Your task to perform on an android device: Open Chrome and go to the settings page Image 0: 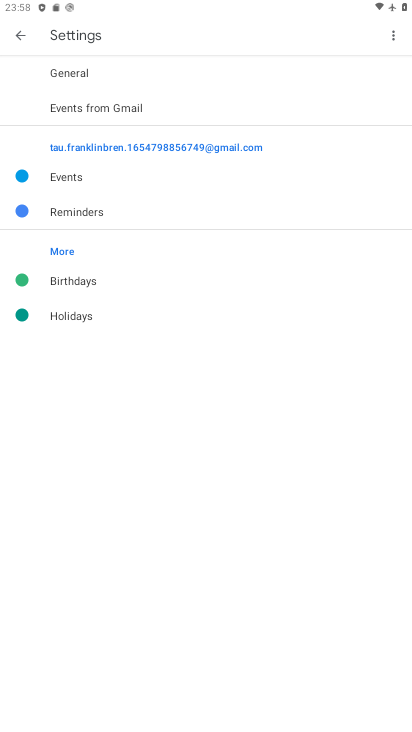
Step 0: press back button
Your task to perform on an android device: Open Chrome and go to the settings page Image 1: 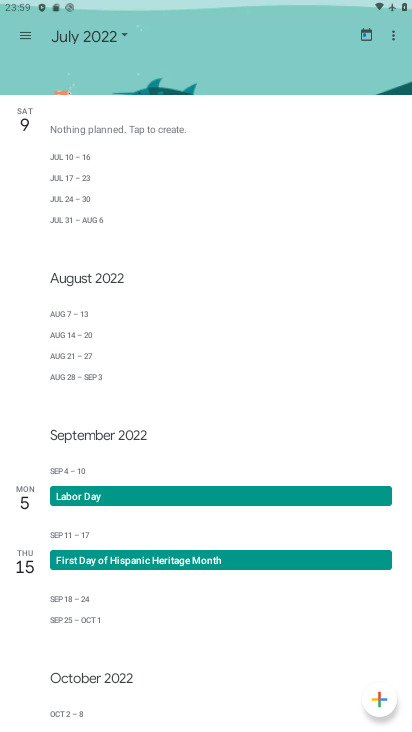
Step 1: press home button
Your task to perform on an android device: Open Chrome and go to the settings page Image 2: 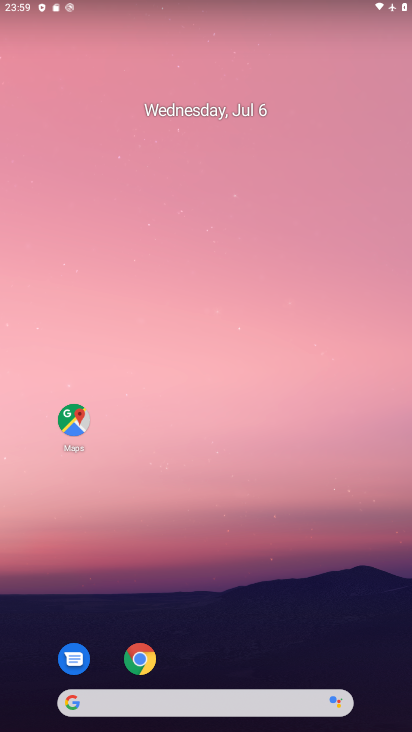
Step 2: drag from (239, 715) to (188, 73)
Your task to perform on an android device: Open Chrome and go to the settings page Image 3: 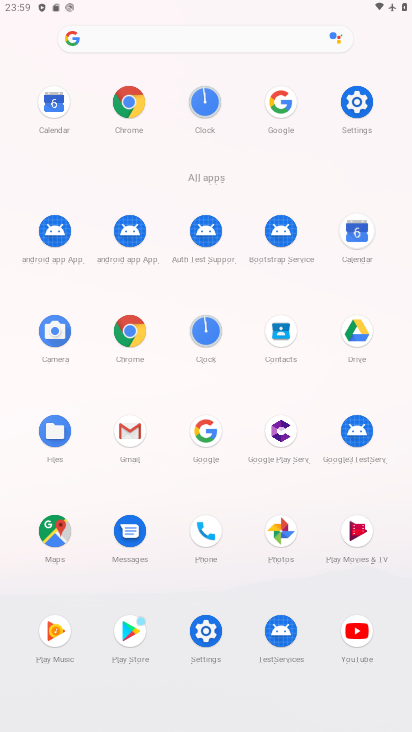
Step 3: click (356, 105)
Your task to perform on an android device: Open Chrome and go to the settings page Image 4: 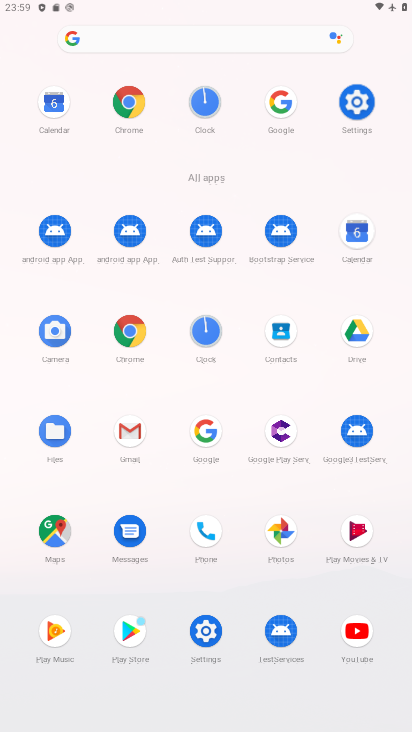
Step 4: click (363, 87)
Your task to perform on an android device: Open Chrome and go to the settings page Image 5: 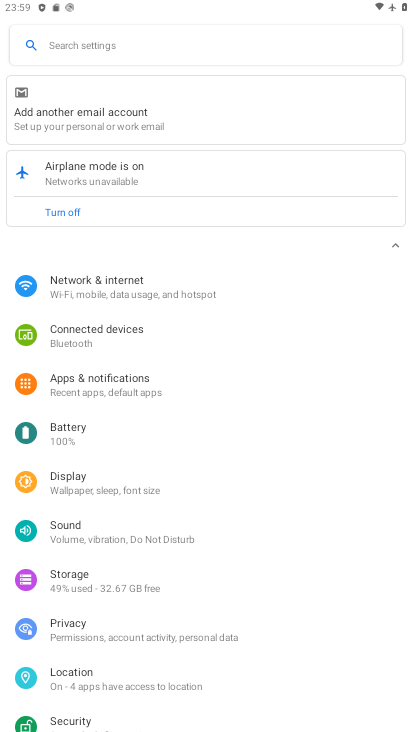
Step 5: press back button
Your task to perform on an android device: Open Chrome and go to the settings page Image 6: 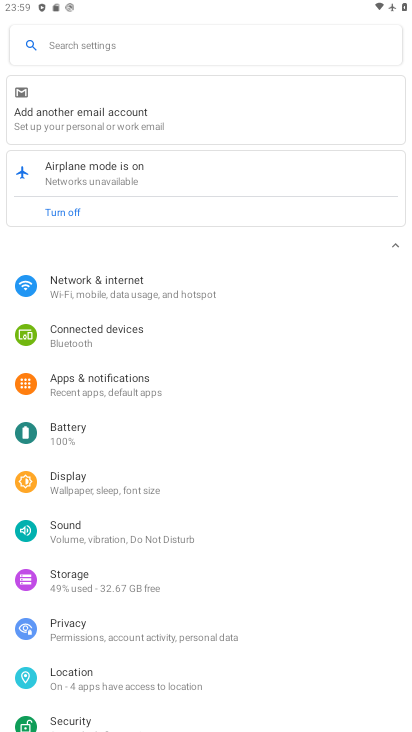
Step 6: press back button
Your task to perform on an android device: Open Chrome and go to the settings page Image 7: 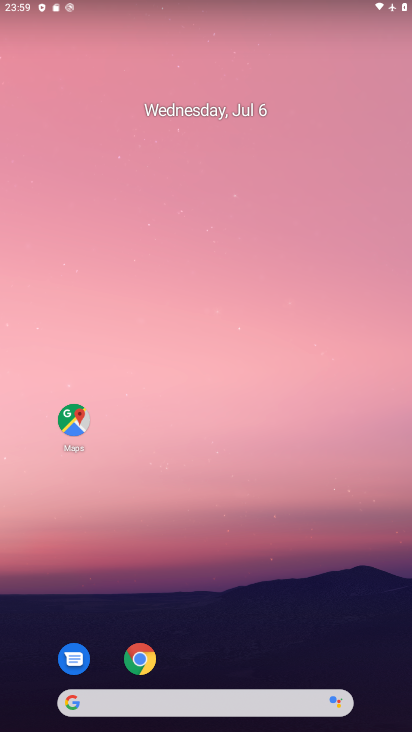
Step 7: drag from (221, 637) to (116, 47)
Your task to perform on an android device: Open Chrome and go to the settings page Image 8: 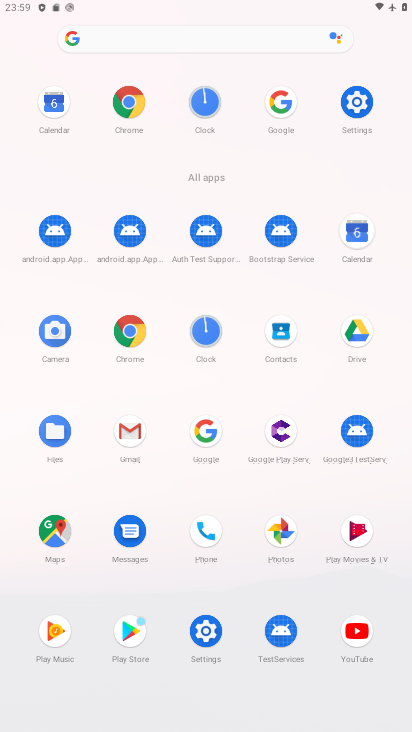
Step 8: click (119, 103)
Your task to perform on an android device: Open Chrome and go to the settings page Image 9: 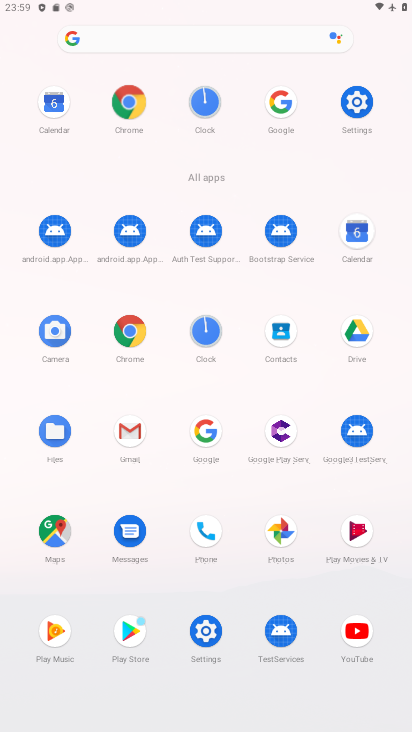
Step 9: click (126, 104)
Your task to perform on an android device: Open Chrome and go to the settings page Image 10: 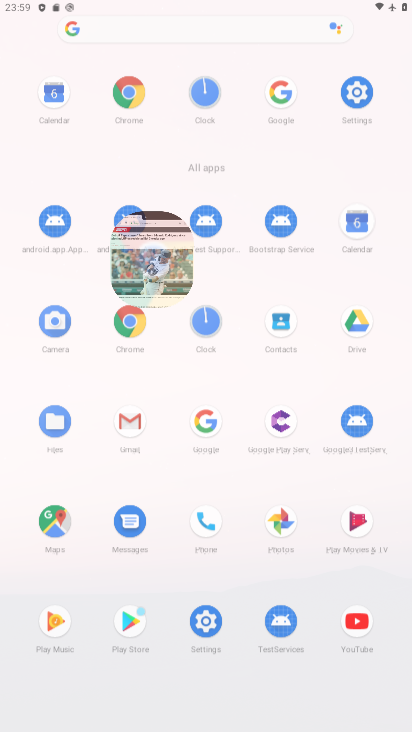
Step 10: click (128, 105)
Your task to perform on an android device: Open Chrome and go to the settings page Image 11: 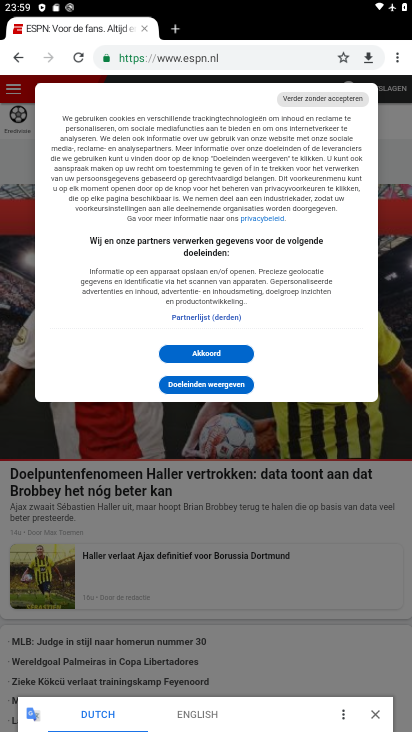
Step 11: click (201, 395)
Your task to perform on an android device: Open Chrome and go to the settings page Image 12: 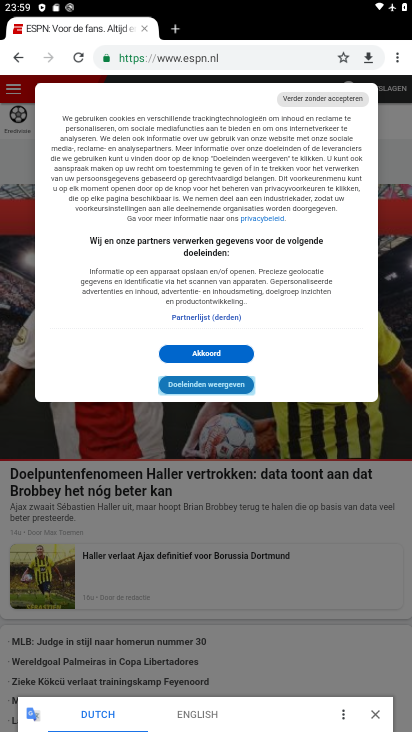
Step 12: drag from (229, 426) to (341, 401)
Your task to perform on an android device: Open Chrome and go to the settings page Image 13: 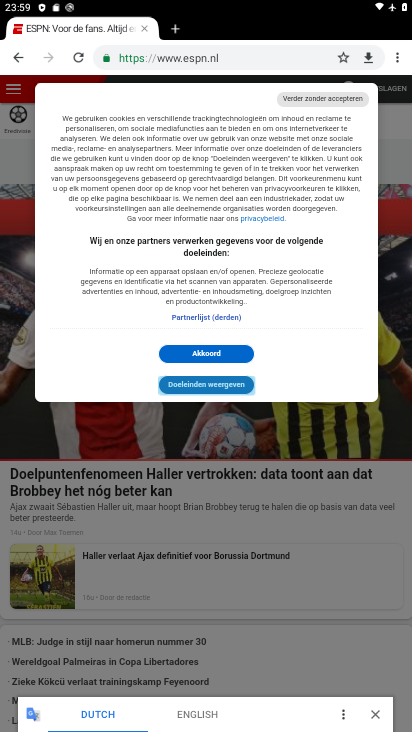
Step 13: click (342, 401)
Your task to perform on an android device: Open Chrome and go to the settings page Image 14: 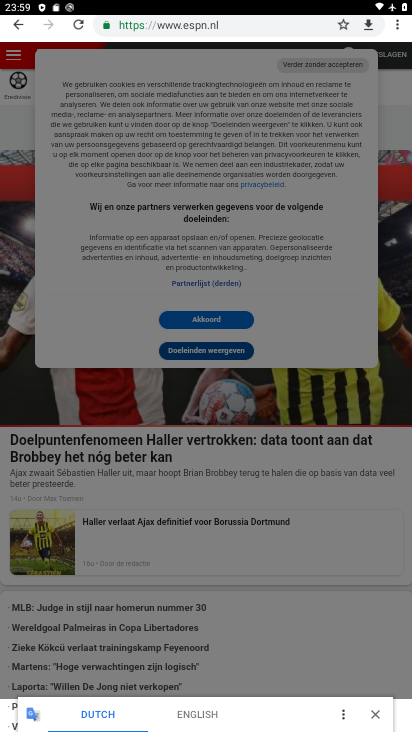
Step 14: click (360, 428)
Your task to perform on an android device: Open Chrome and go to the settings page Image 15: 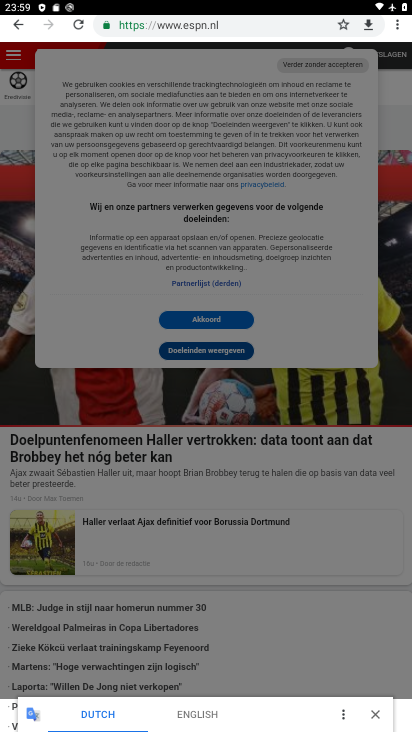
Step 15: click (361, 429)
Your task to perform on an android device: Open Chrome and go to the settings page Image 16: 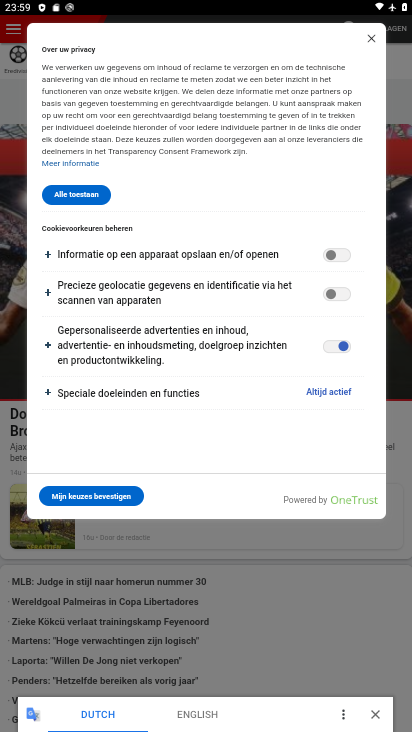
Step 16: click (5, 189)
Your task to perform on an android device: Open Chrome and go to the settings page Image 17: 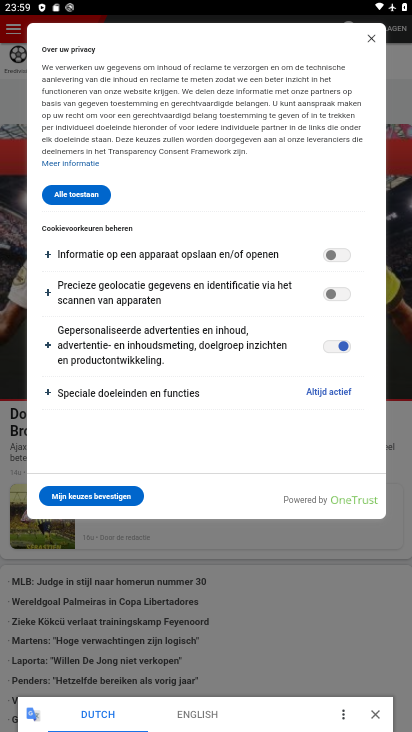
Step 17: click (28, 195)
Your task to perform on an android device: Open Chrome and go to the settings page Image 18: 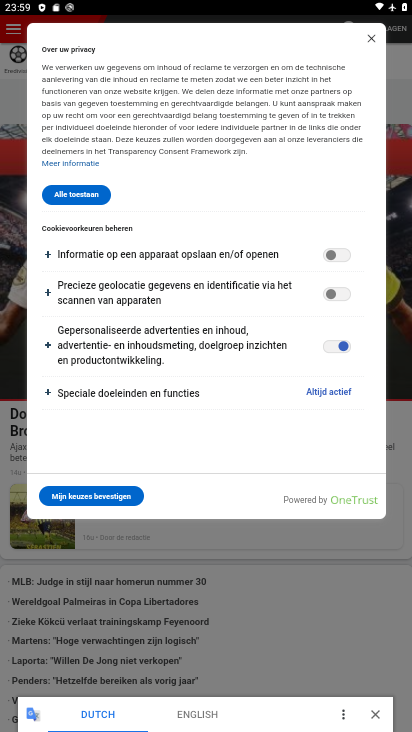
Step 18: click (23, 234)
Your task to perform on an android device: Open Chrome and go to the settings page Image 19: 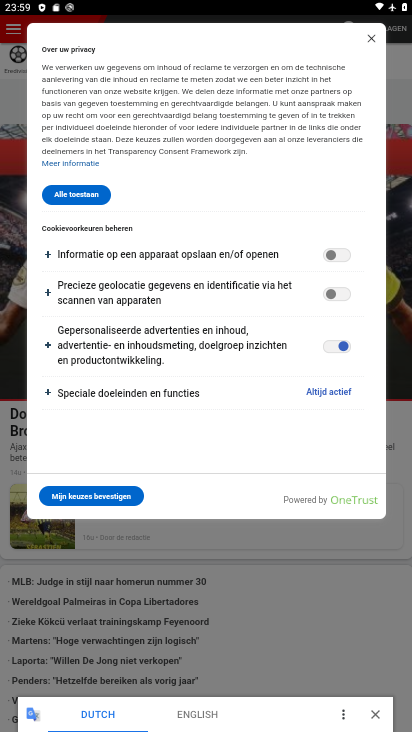
Step 19: click (369, 40)
Your task to perform on an android device: Open Chrome and go to the settings page Image 20: 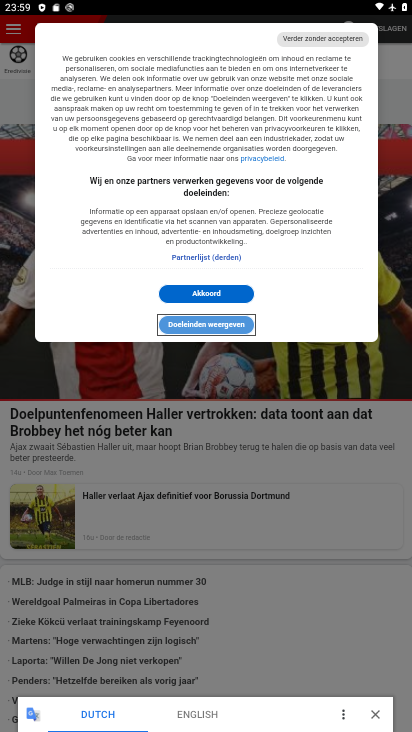
Step 20: click (372, 132)
Your task to perform on an android device: Open Chrome and go to the settings page Image 21: 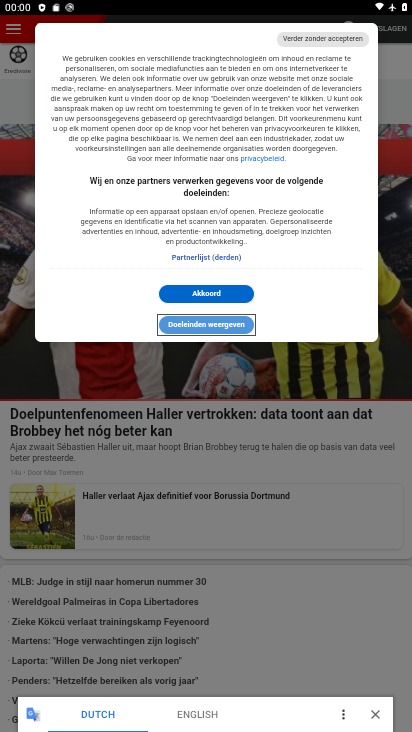
Step 21: click (380, 137)
Your task to perform on an android device: Open Chrome and go to the settings page Image 22: 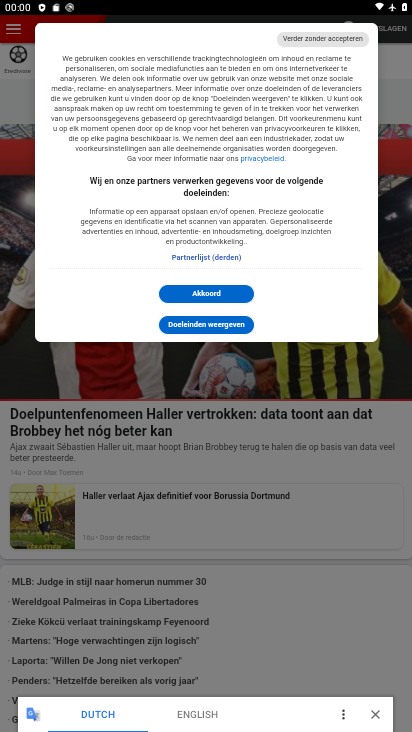
Step 22: click (400, 114)
Your task to perform on an android device: Open Chrome and go to the settings page Image 23: 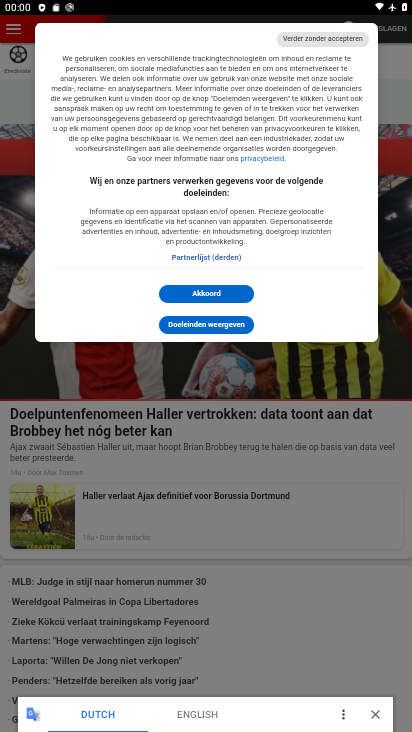
Step 23: click (401, 115)
Your task to perform on an android device: Open Chrome and go to the settings page Image 24: 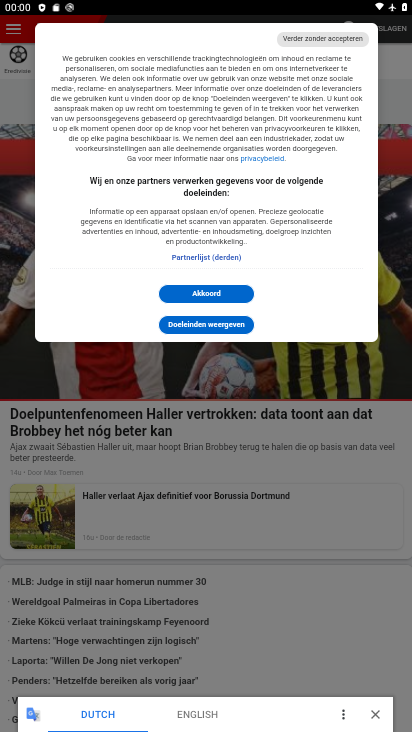
Step 24: click (399, 115)
Your task to perform on an android device: Open Chrome and go to the settings page Image 25: 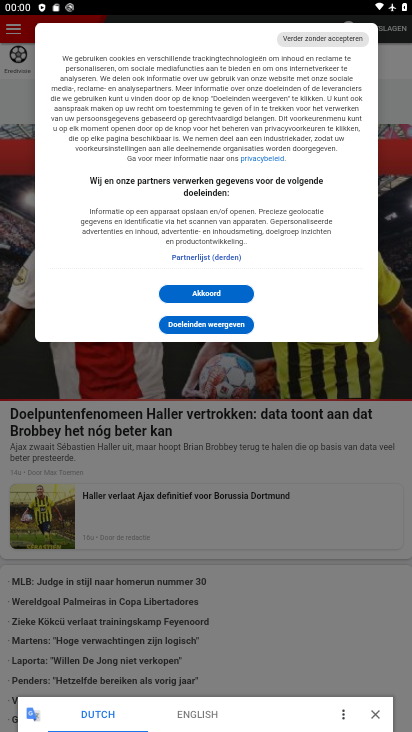
Step 25: click (395, 121)
Your task to perform on an android device: Open Chrome and go to the settings page Image 26: 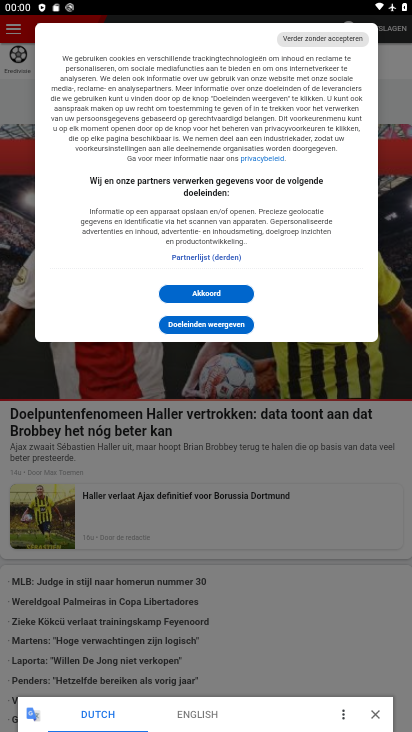
Step 26: click (380, 197)
Your task to perform on an android device: Open Chrome and go to the settings page Image 27: 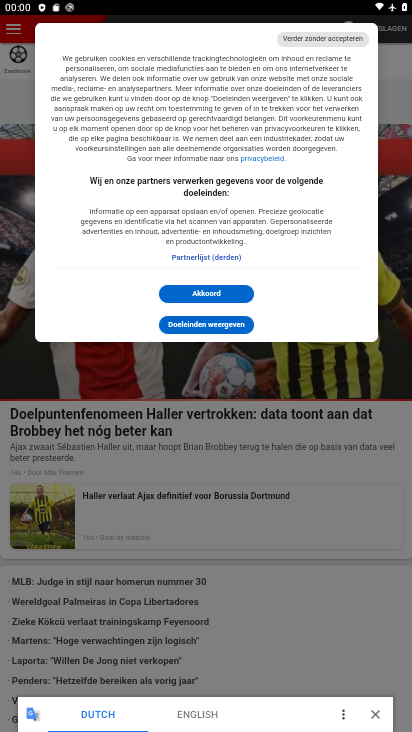
Step 27: click (380, 197)
Your task to perform on an android device: Open Chrome and go to the settings page Image 28: 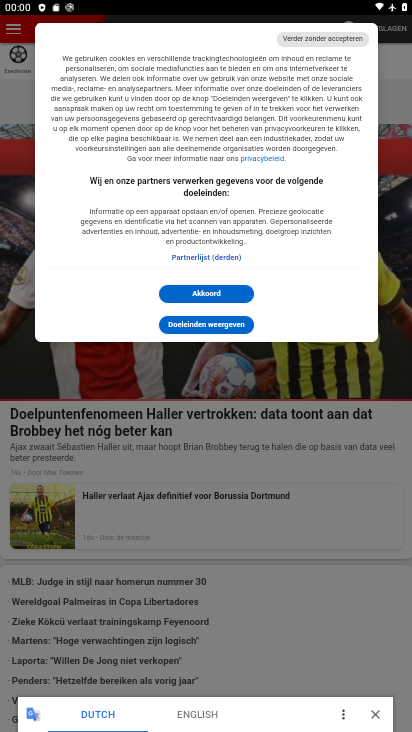
Step 28: click (387, 199)
Your task to perform on an android device: Open Chrome and go to the settings page Image 29: 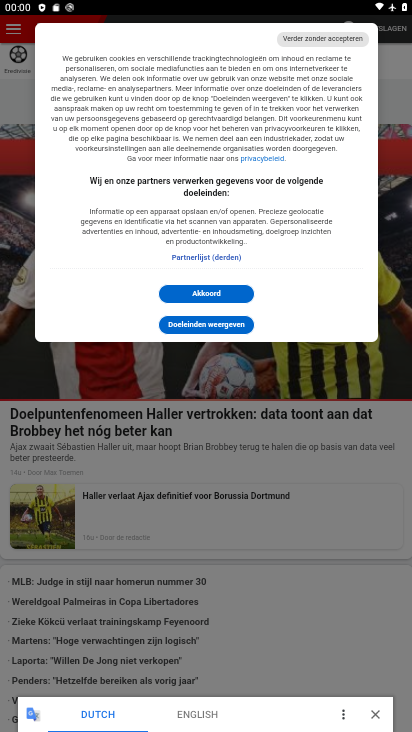
Step 29: click (387, 199)
Your task to perform on an android device: Open Chrome and go to the settings page Image 30: 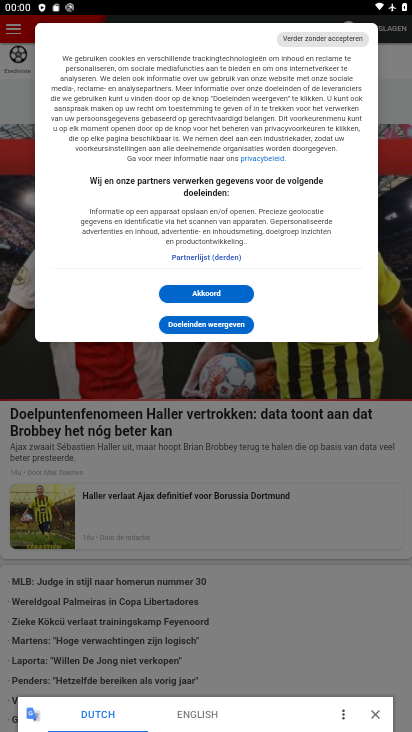
Step 30: click (387, 199)
Your task to perform on an android device: Open Chrome and go to the settings page Image 31: 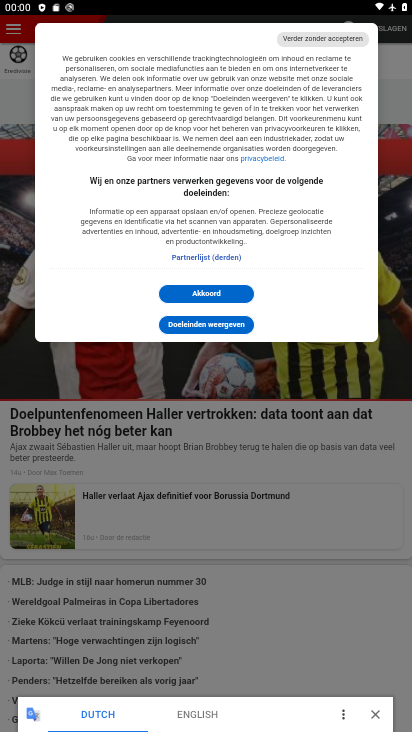
Step 31: task complete